Your task to perform on an android device: Go to notification settings Image 0: 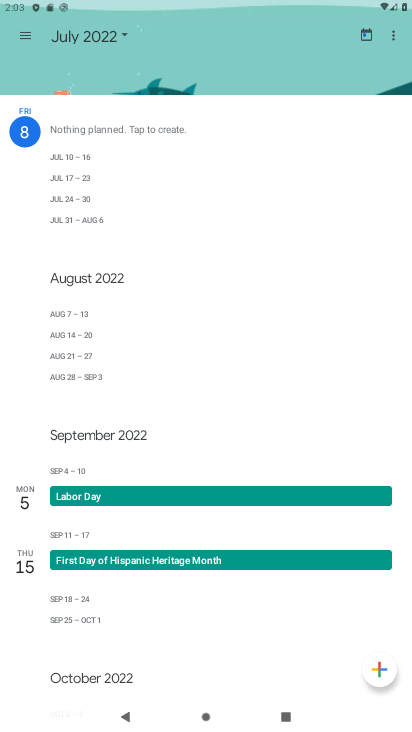
Step 0: press home button
Your task to perform on an android device: Go to notification settings Image 1: 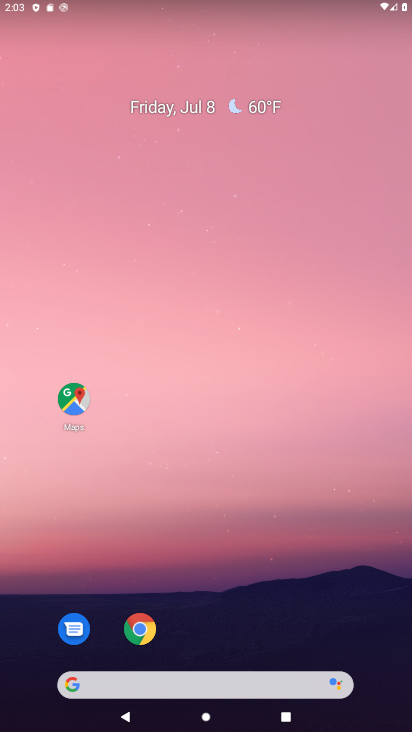
Step 1: drag from (253, 642) to (299, 191)
Your task to perform on an android device: Go to notification settings Image 2: 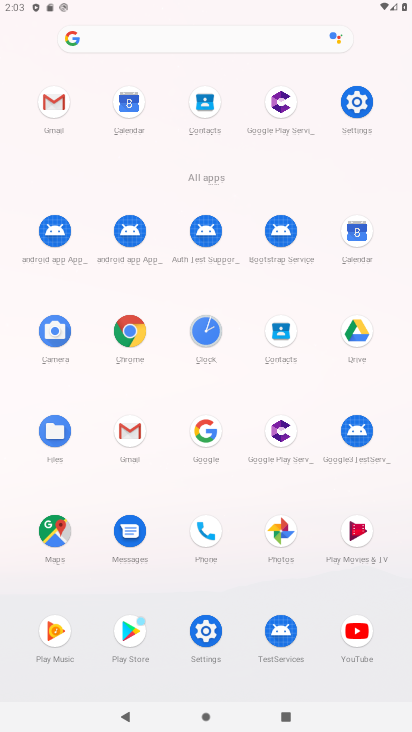
Step 2: click (362, 115)
Your task to perform on an android device: Go to notification settings Image 3: 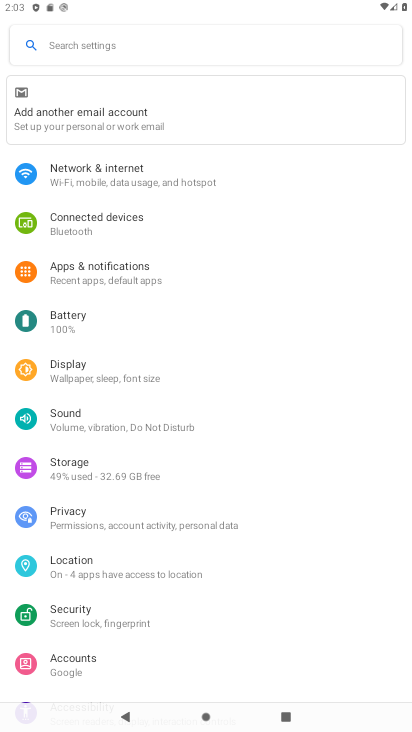
Step 3: click (215, 268)
Your task to perform on an android device: Go to notification settings Image 4: 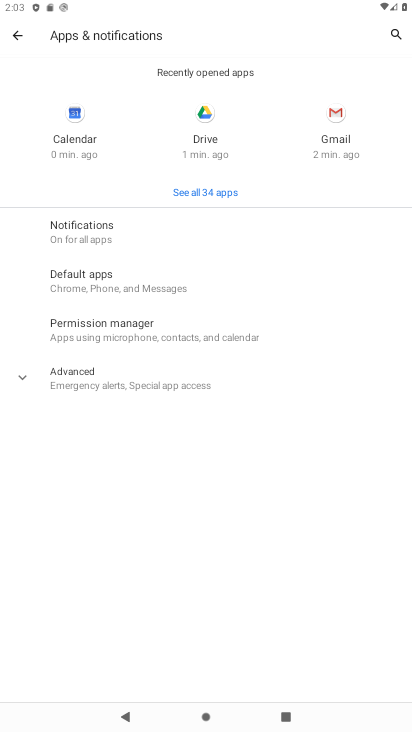
Step 4: click (173, 241)
Your task to perform on an android device: Go to notification settings Image 5: 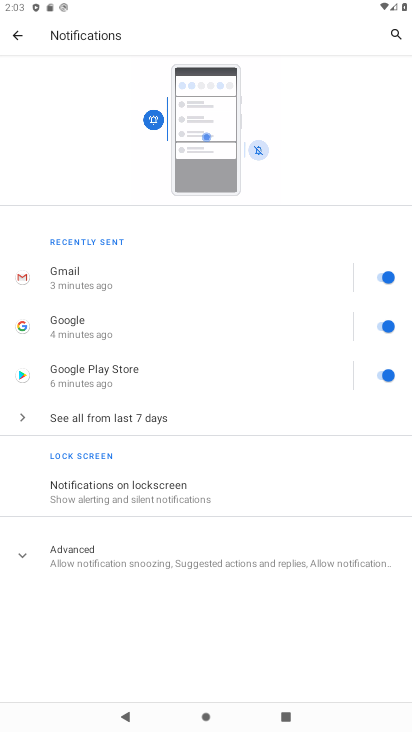
Step 5: task complete